Your task to perform on an android device: Open Google Chrome and click the shortcut for Amazon.com Image 0: 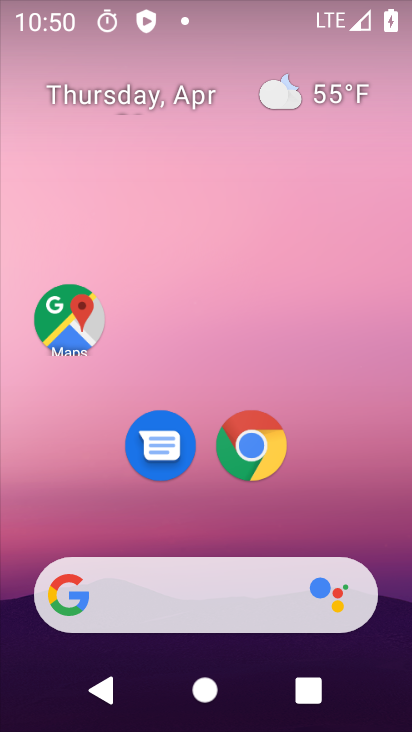
Step 0: click (258, 451)
Your task to perform on an android device: Open Google Chrome and click the shortcut for Amazon.com Image 1: 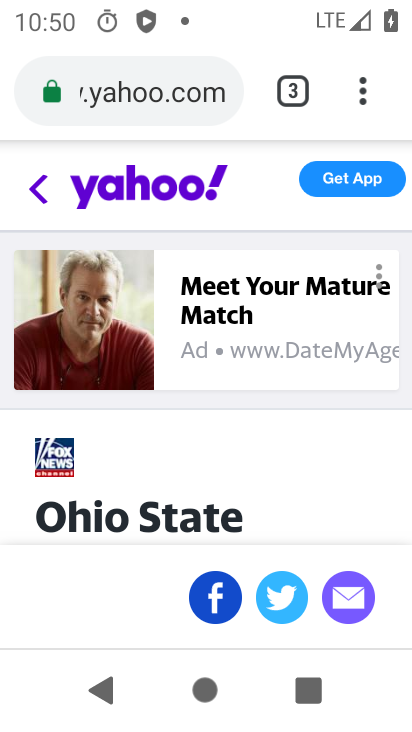
Step 1: click (363, 96)
Your task to perform on an android device: Open Google Chrome and click the shortcut for Amazon.com Image 2: 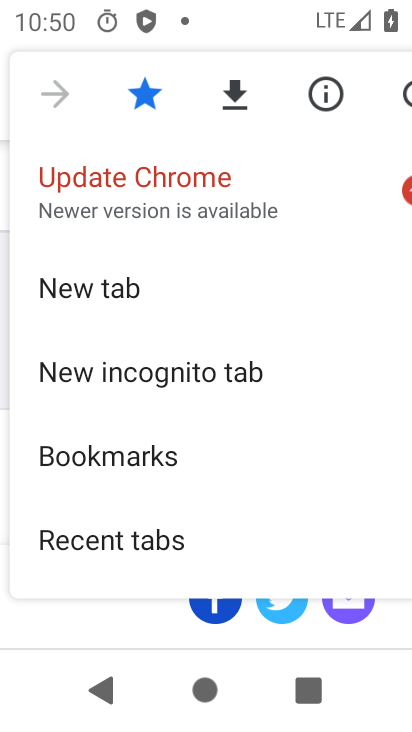
Step 2: click (71, 292)
Your task to perform on an android device: Open Google Chrome and click the shortcut for Amazon.com Image 3: 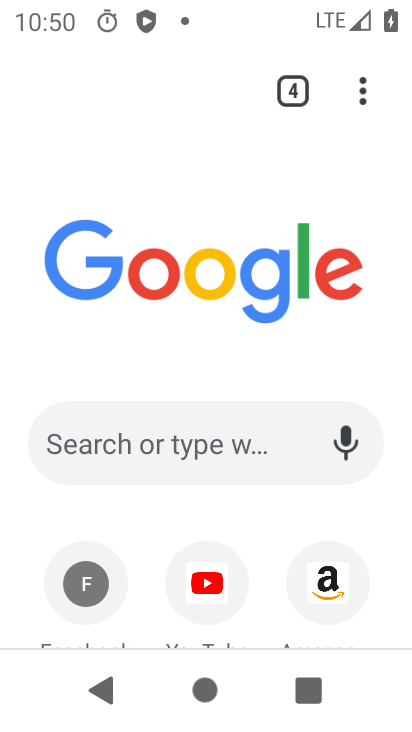
Step 3: click (336, 588)
Your task to perform on an android device: Open Google Chrome and click the shortcut for Amazon.com Image 4: 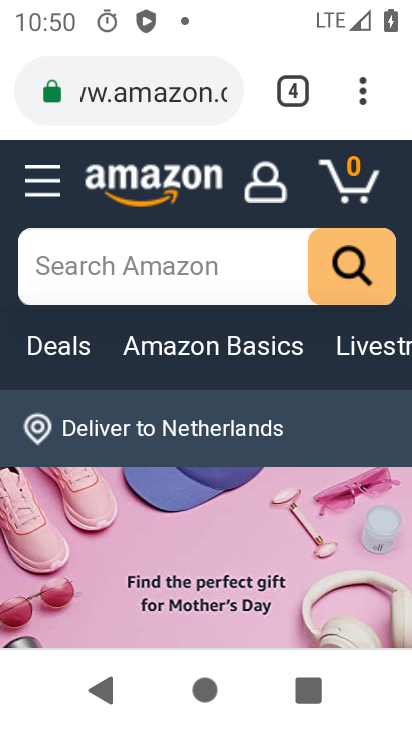
Step 4: task complete